Your task to perform on an android device: Open Reddit.com Image 0: 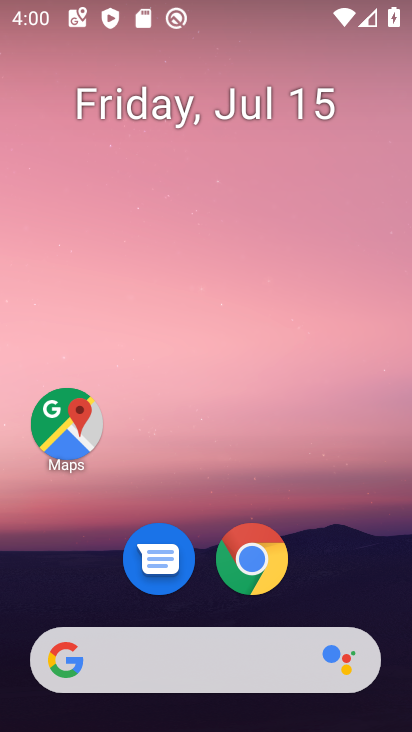
Step 0: click (266, 544)
Your task to perform on an android device: Open Reddit.com Image 1: 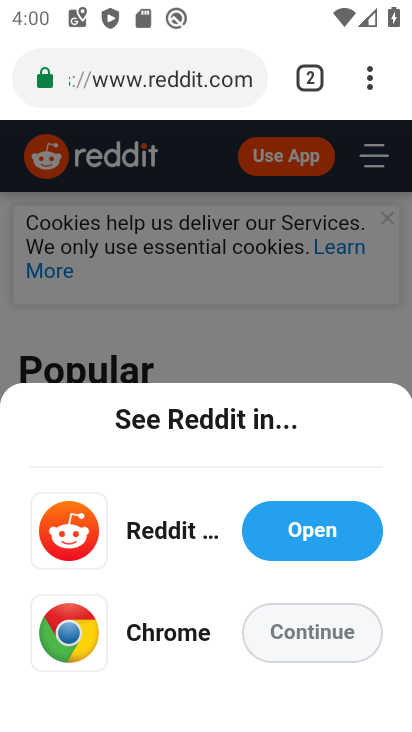
Step 1: task complete